Your task to perform on an android device: Go to eBay Image 0: 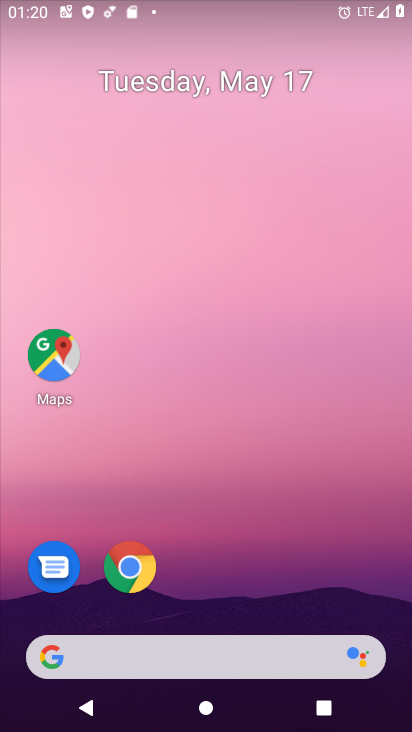
Step 0: click (137, 556)
Your task to perform on an android device: Go to eBay Image 1: 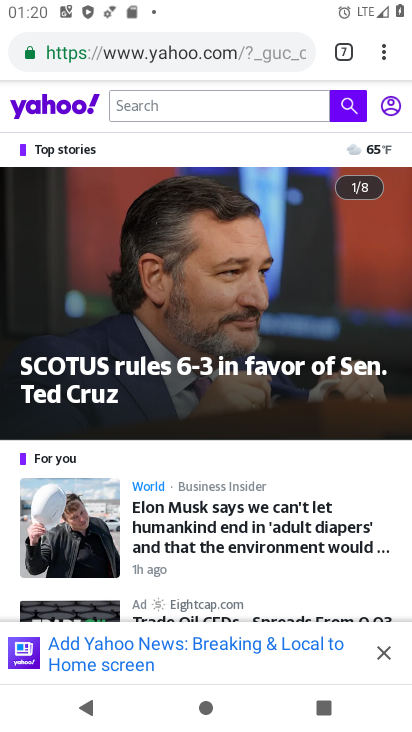
Step 1: click (383, 50)
Your task to perform on an android device: Go to eBay Image 2: 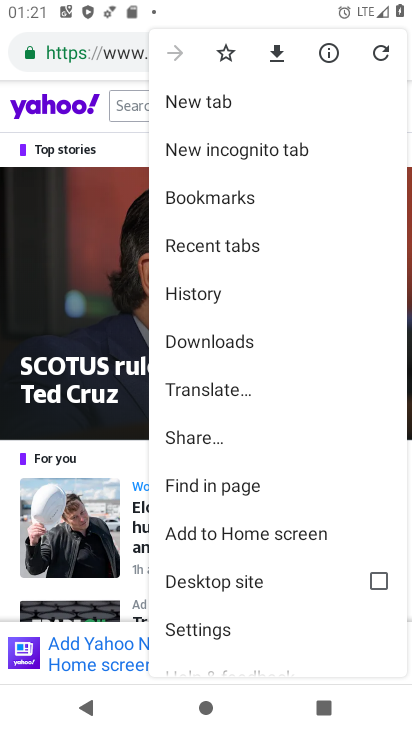
Step 2: click (207, 95)
Your task to perform on an android device: Go to eBay Image 3: 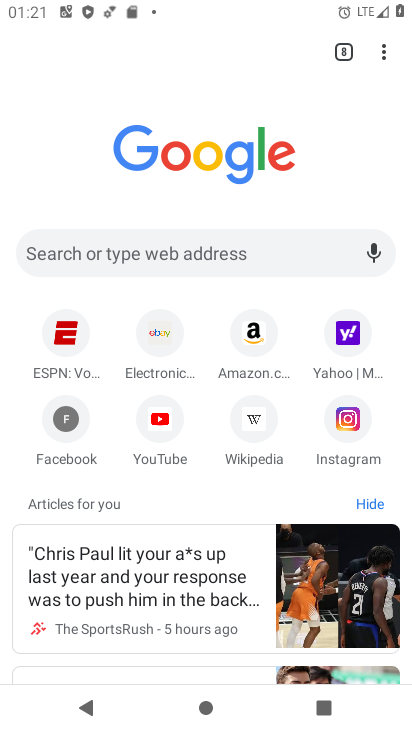
Step 3: click (159, 321)
Your task to perform on an android device: Go to eBay Image 4: 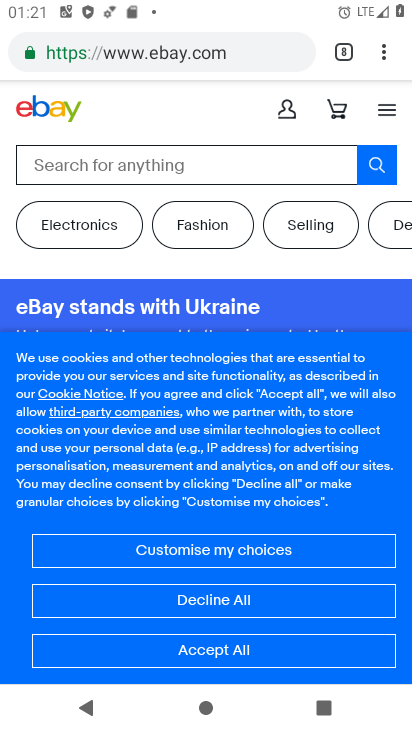
Step 4: task complete